Your task to perform on an android device: Show me popular games on the Play Store Image 0: 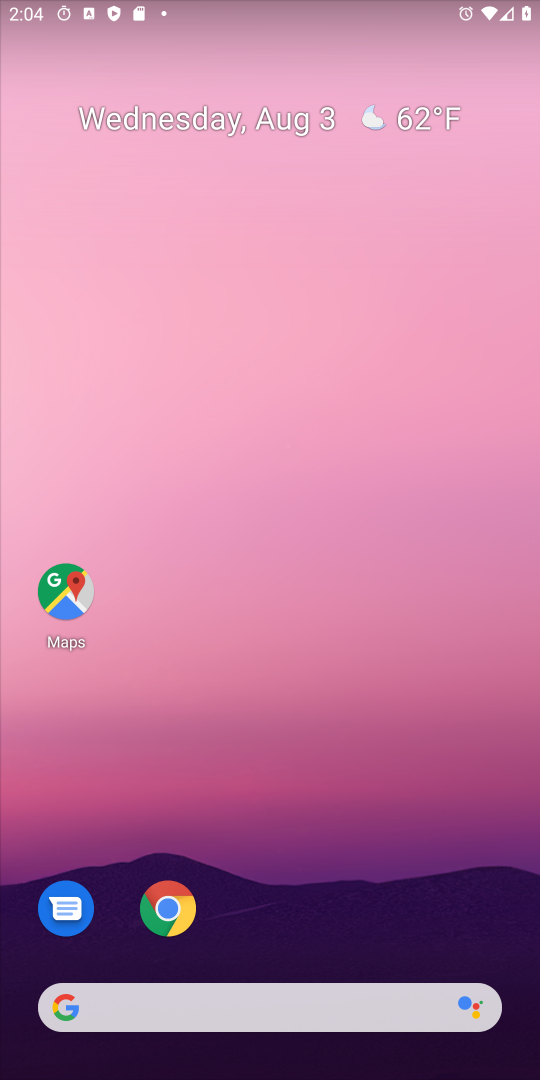
Step 0: drag from (407, 935) to (238, 5)
Your task to perform on an android device: Show me popular games on the Play Store Image 1: 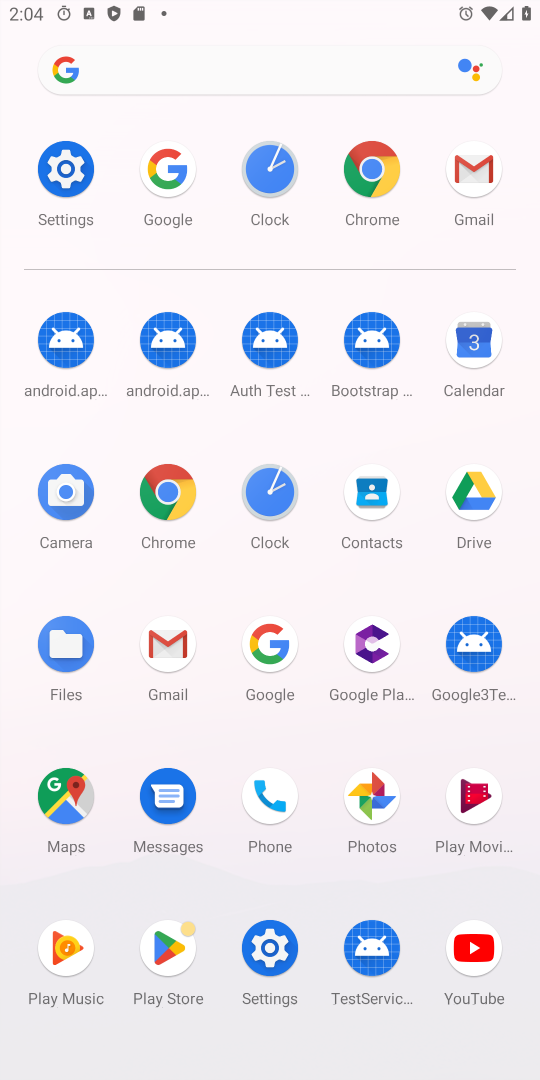
Step 1: click (184, 951)
Your task to perform on an android device: Show me popular games on the Play Store Image 2: 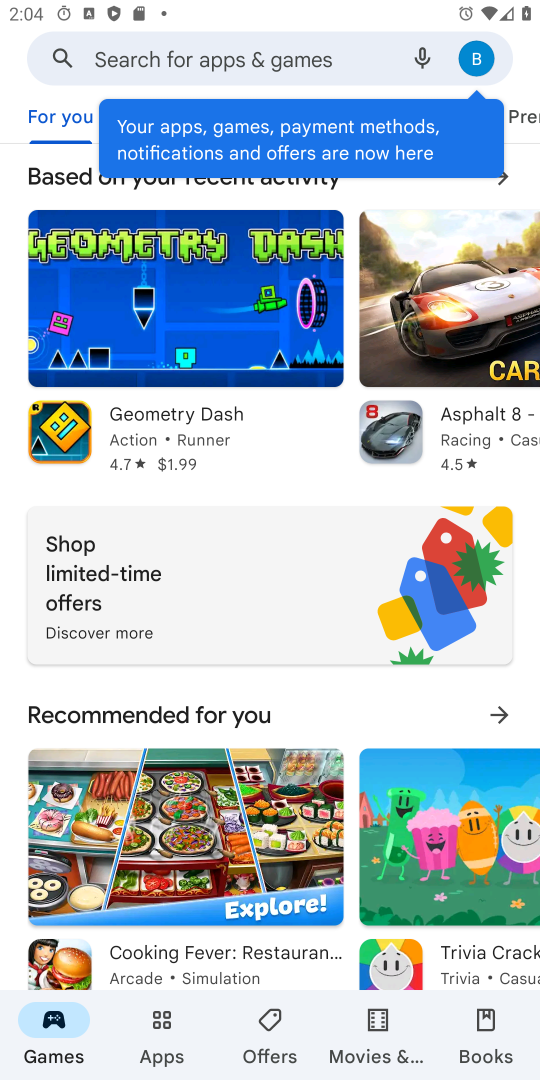
Step 2: click (169, 1028)
Your task to perform on an android device: Show me popular games on the Play Store Image 3: 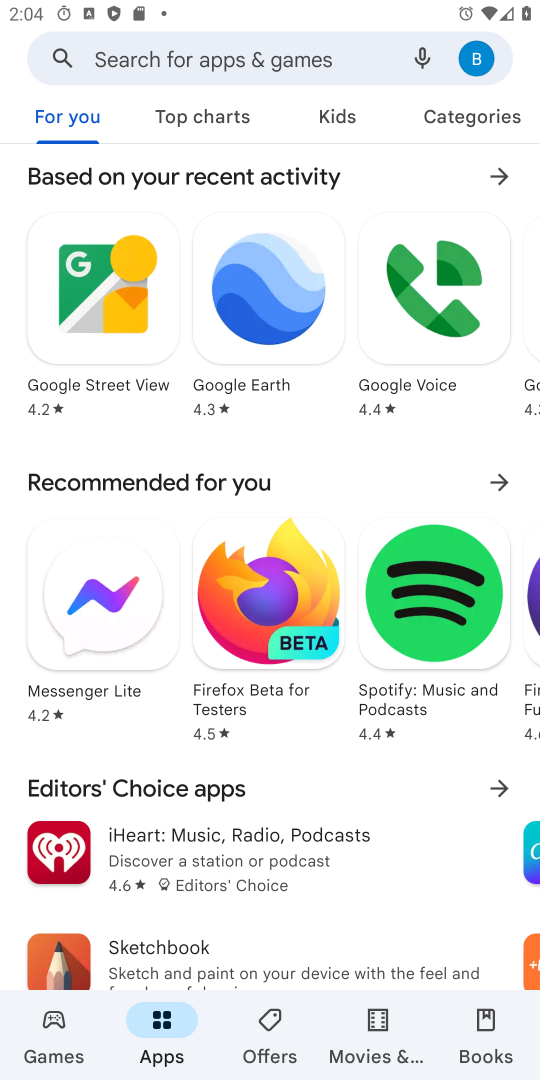
Step 3: drag from (233, 631) to (230, 141)
Your task to perform on an android device: Show me popular games on the Play Store Image 4: 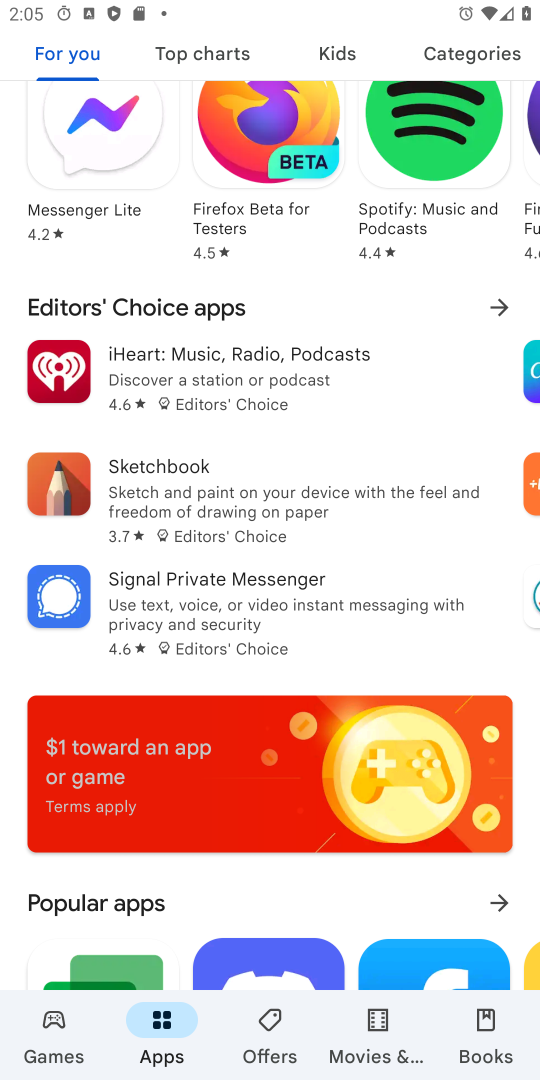
Step 4: drag from (79, 921) to (40, 416)
Your task to perform on an android device: Show me popular games on the Play Store Image 5: 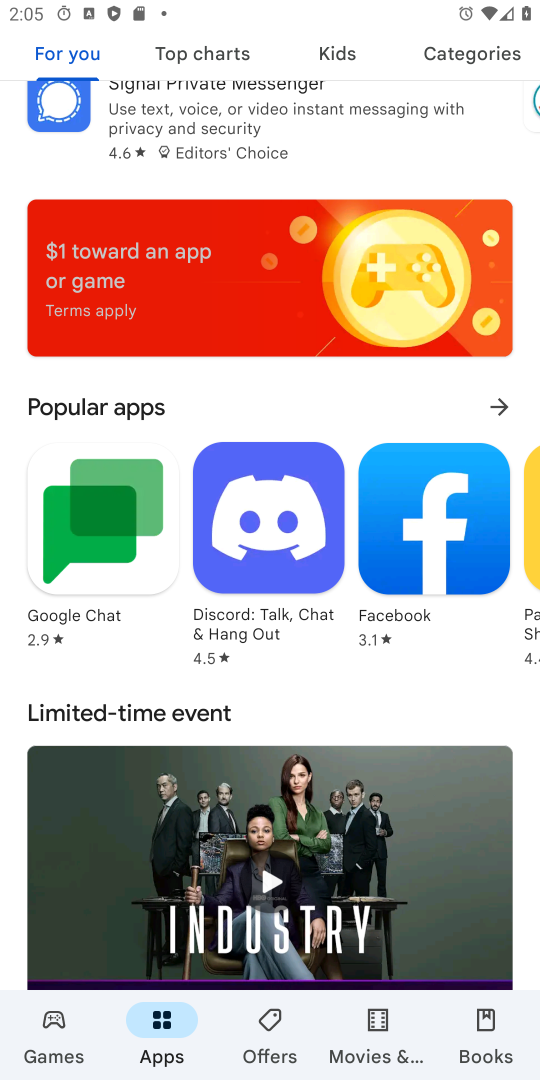
Step 5: click (502, 413)
Your task to perform on an android device: Show me popular games on the Play Store Image 6: 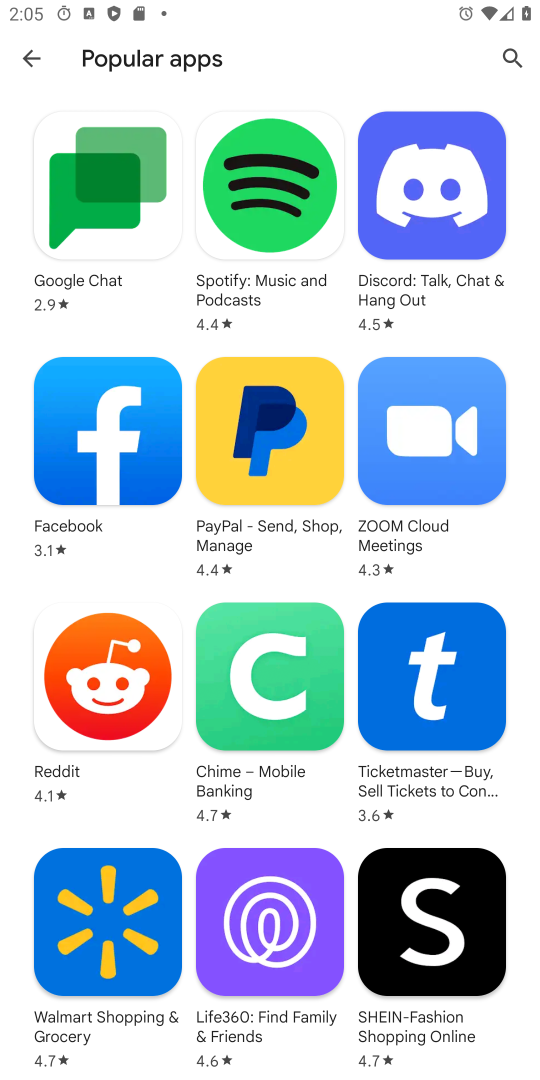
Step 6: task complete